Your task to perform on an android device: turn off javascript in the chrome app Image 0: 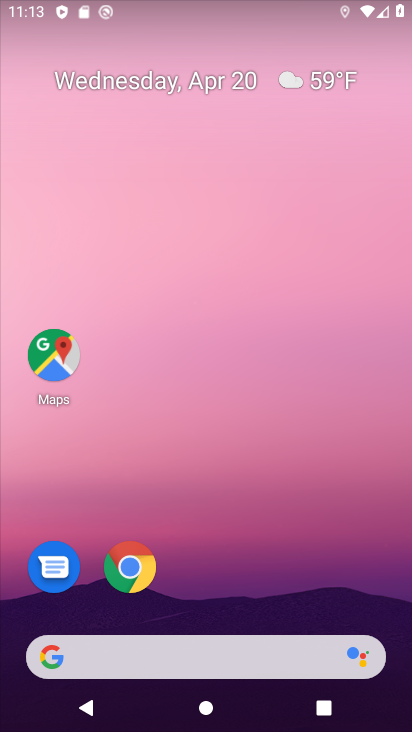
Step 0: click (127, 560)
Your task to perform on an android device: turn off javascript in the chrome app Image 1: 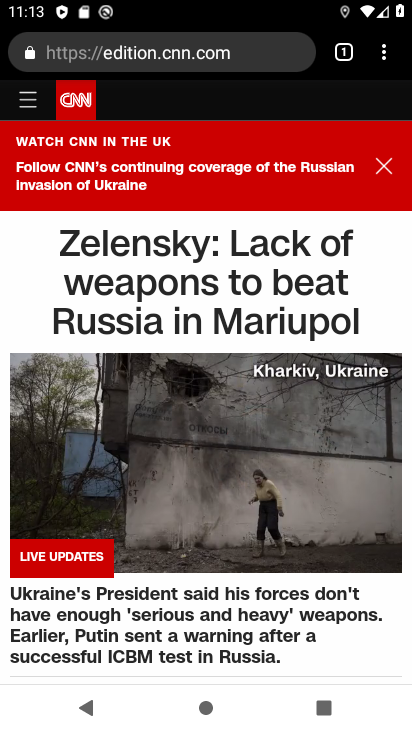
Step 1: click (387, 63)
Your task to perform on an android device: turn off javascript in the chrome app Image 2: 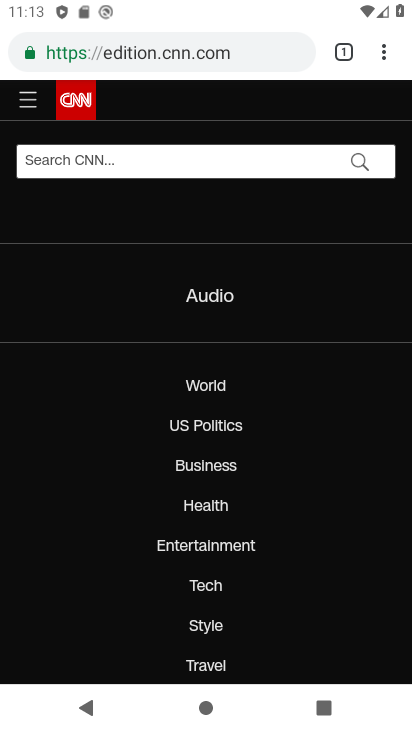
Step 2: click (387, 63)
Your task to perform on an android device: turn off javascript in the chrome app Image 3: 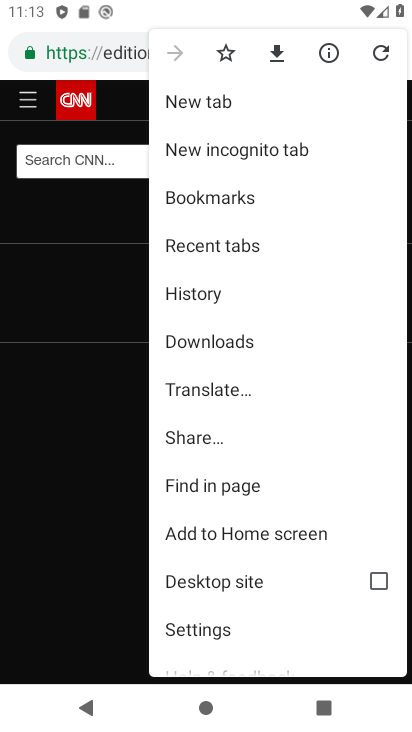
Step 3: click (225, 620)
Your task to perform on an android device: turn off javascript in the chrome app Image 4: 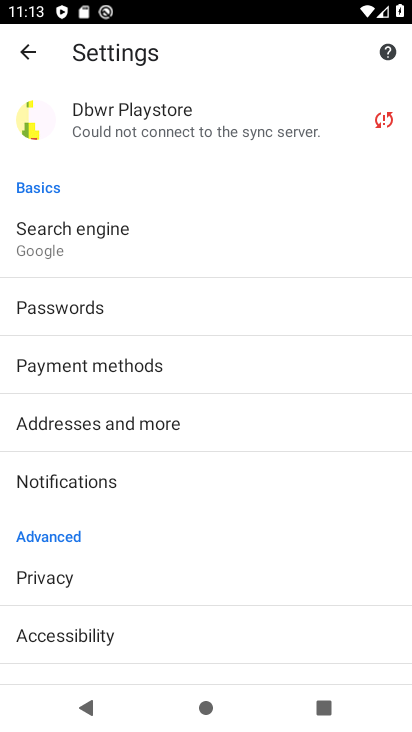
Step 4: drag from (143, 624) to (150, 509)
Your task to perform on an android device: turn off javascript in the chrome app Image 5: 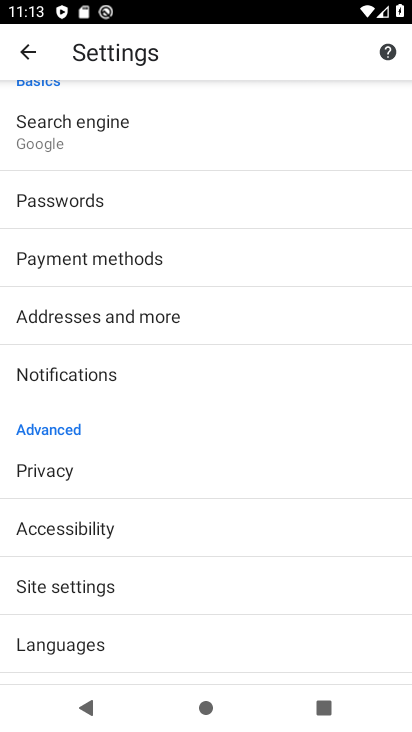
Step 5: drag from (121, 606) to (127, 555)
Your task to perform on an android device: turn off javascript in the chrome app Image 6: 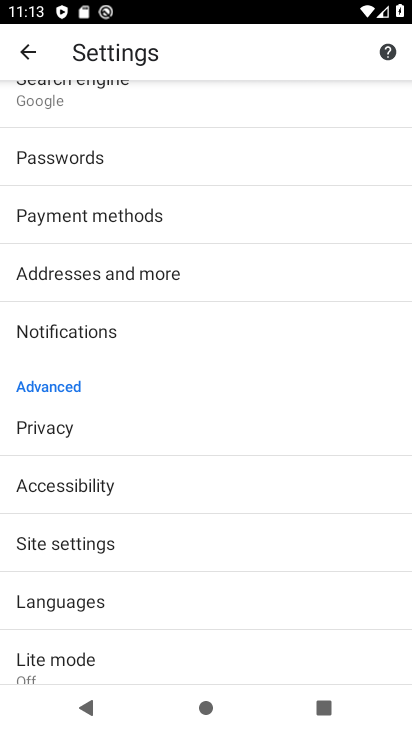
Step 6: drag from (122, 613) to (138, 548)
Your task to perform on an android device: turn off javascript in the chrome app Image 7: 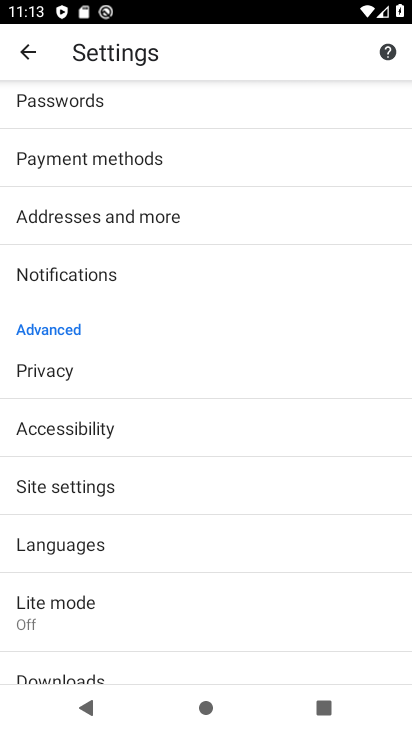
Step 7: drag from (138, 601) to (165, 509)
Your task to perform on an android device: turn off javascript in the chrome app Image 8: 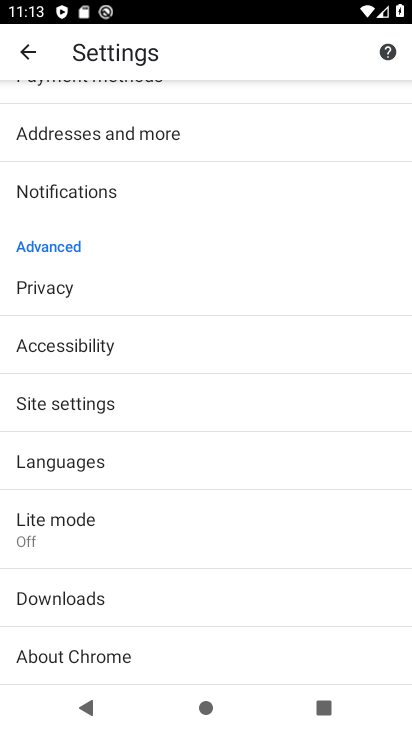
Step 8: drag from (161, 595) to (177, 527)
Your task to perform on an android device: turn off javascript in the chrome app Image 9: 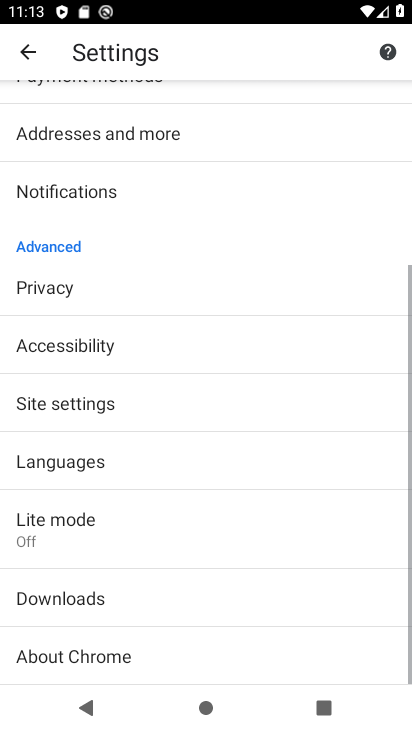
Step 9: click (128, 385)
Your task to perform on an android device: turn off javascript in the chrome app Image 10: 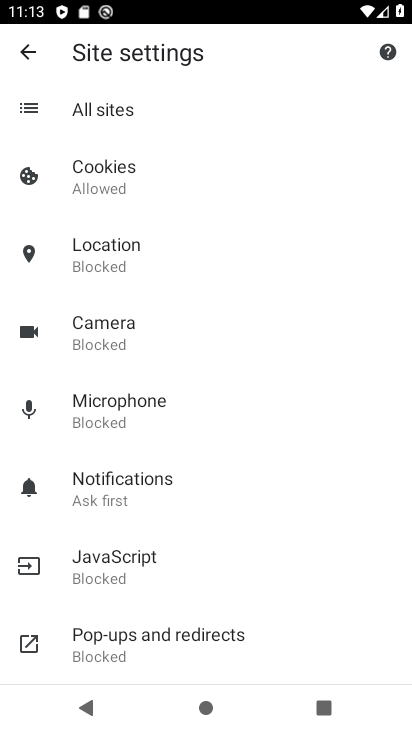
Step 10: click (107, 558)
Your task to perform on an android device: turn off javascript in the chrome app Image 11: 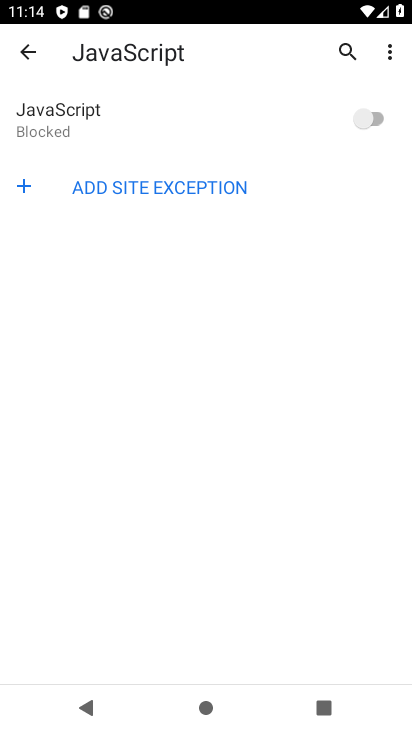
Step 11: task complete